Your task to perform on an android device: How much does the Sony TV cost? Image 0: 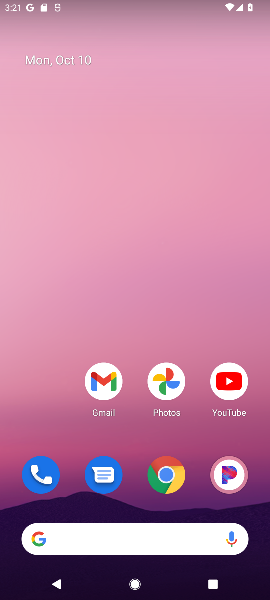
Step 0: drag from (159, 488) to (159, 105)
Your task to perform on an android device: How much does the Sony TV cost? Image 1: 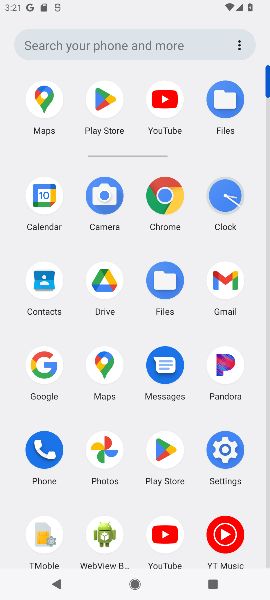
Step 1: click (40, 370)
Your task to perform on an android device: How much does the Sony TV cost? Image 2: 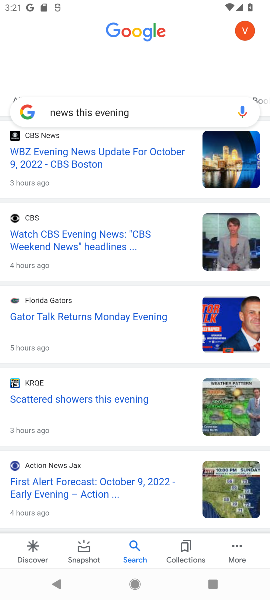
Step 2: click (182, 112)
Your task to perform on an android device: How much does the Sony TV cost? Image 3: 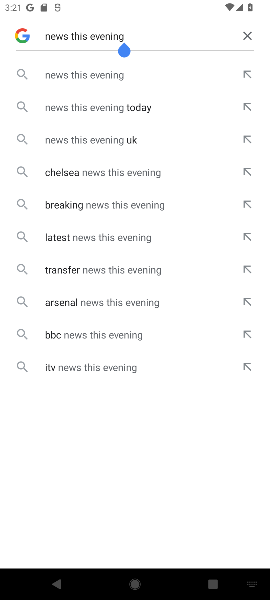
Step 3: click (240, 30)
Your task to perform on an android device: How much does the Sony TV cost? Image 4: 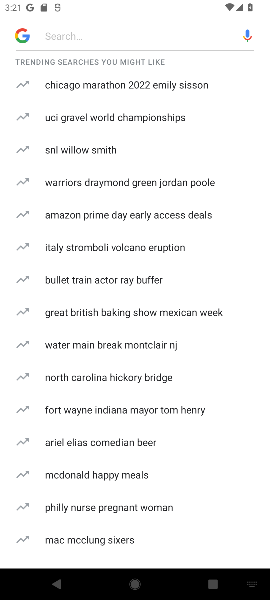
Step 4: type "How much does the Sony TV cost?"
Your task to perform on an android device: How much does the Sony TV cost? Image 5: 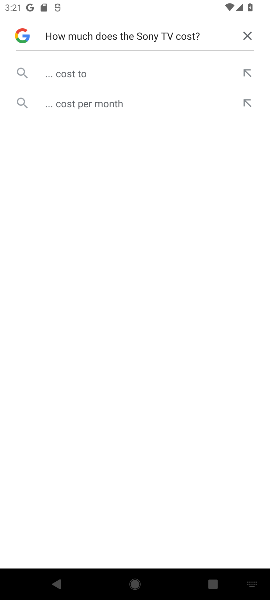
Step 5: click (199, 69)
Your task to perform on an android device: How much does the Sony TV cost? Image 6: 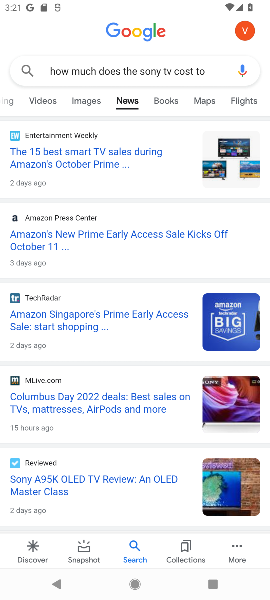
Step 6: click (15, 104)
Your task to perform on an android device: How much does the Sony TV cost? Image 7: 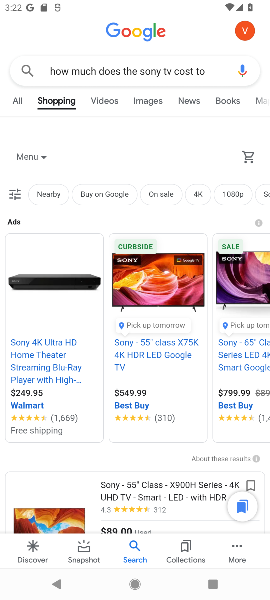
Step 7: task complete